Your task to perform on an android device: change notifications settings Image 0: 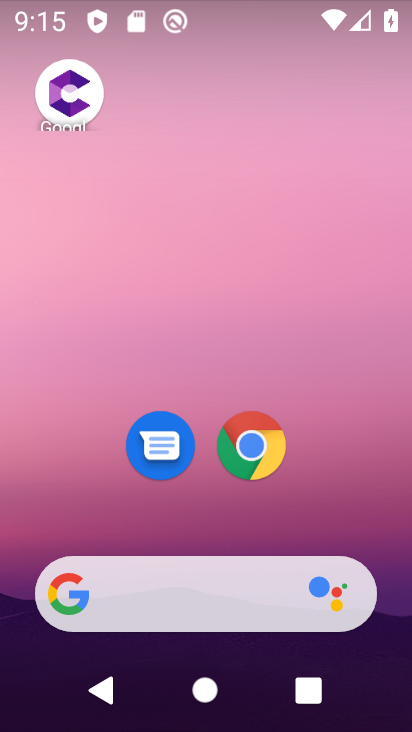
Step 0: drag from (207, 512) to (225, 6)
Your task to perform on an android device: change notifications settings Image 1: 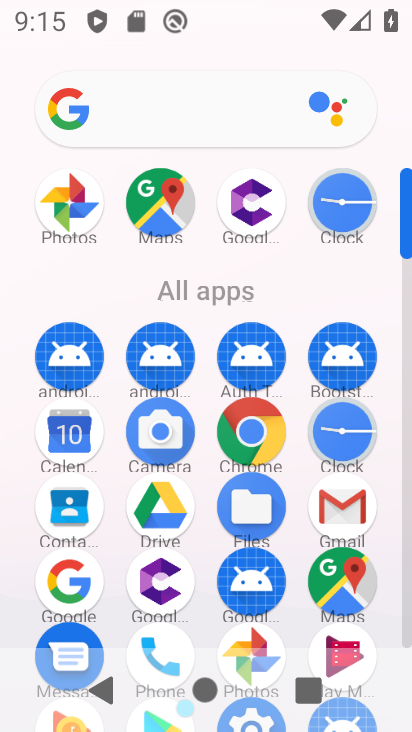
Step 1: drag from (203, 595) to (277, 113)
Your task to perform on an android device: change notifications settings Image 2: 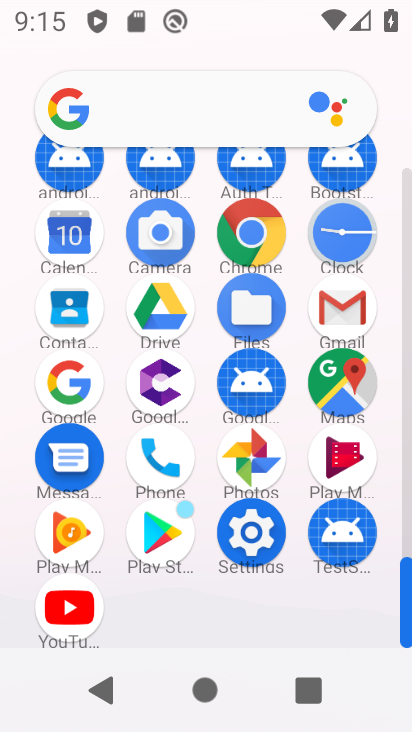
Step 2: click (243, 555)
Your task to perform on an android device: change notifications settings Image 3: 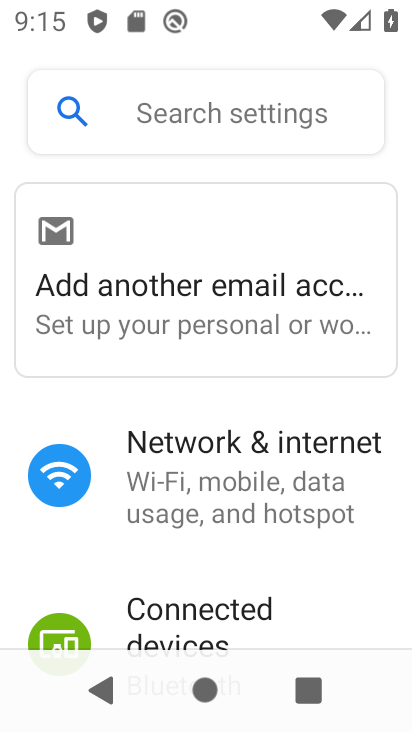
Step 3: drag from (170, 547) to (211, 272)
Your task to perform on an android device: change notifications settings Image 4: 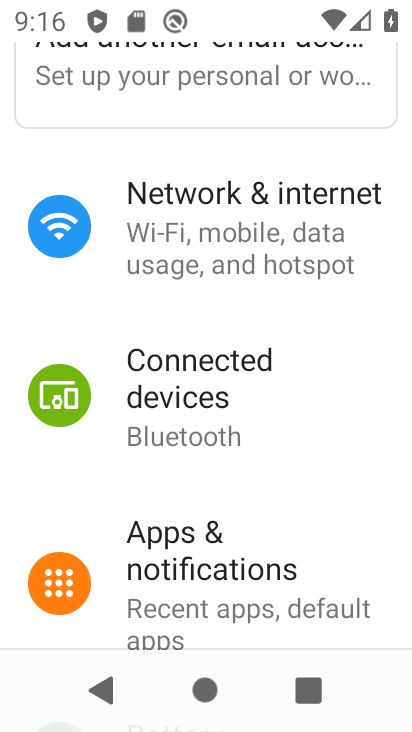
Step 4: click (212, 572)
Your task to perform on an android device: change notifications settings Image 5: 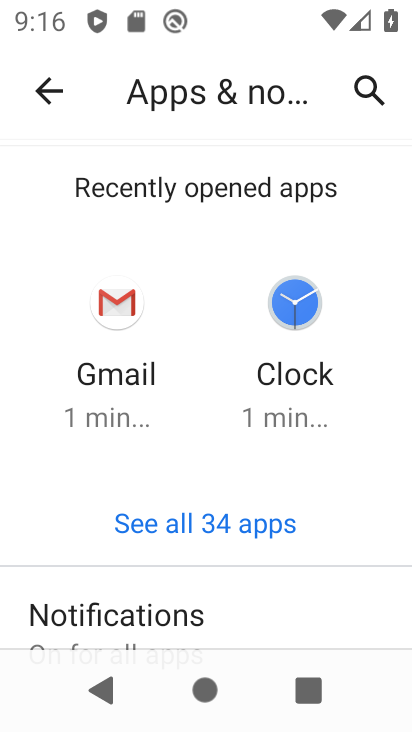
Step 5: click (212, 579)
Your task to perform on an android device: change notifications settings Image 6: 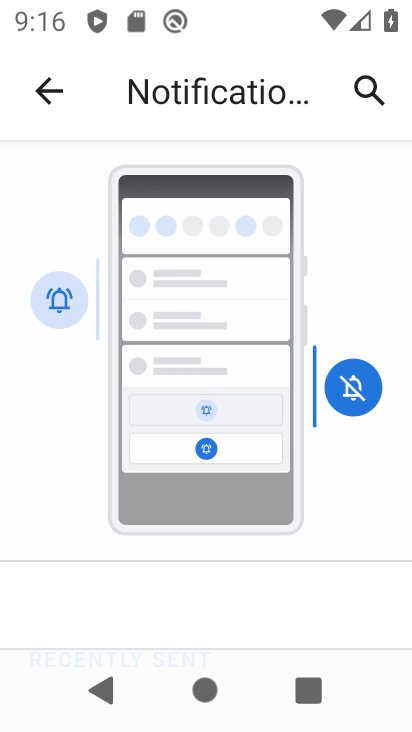
Step 6: drag from (212, 567) to (269, 190)
Your task to perform on an android device: change notifications settings Image 7: 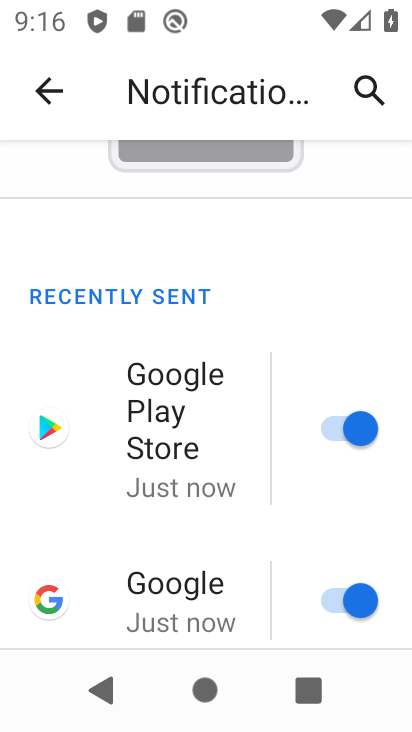
Step 7: click (343, 434)
Your task to perform on an android device: change notifications settings Image 8: 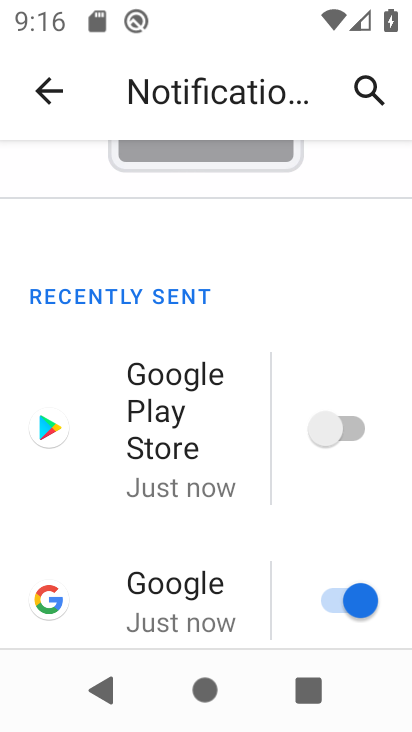
Step 8: click (342, 605)
Your task to perform on an android device: change notifications settings Image 9: 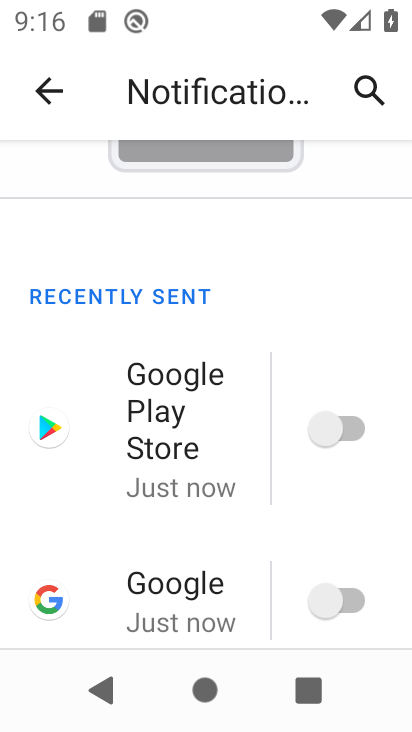
Step 9: task complete